Your task to perform on an android device: uninstall "Microsoft Authenticator" Image 0: 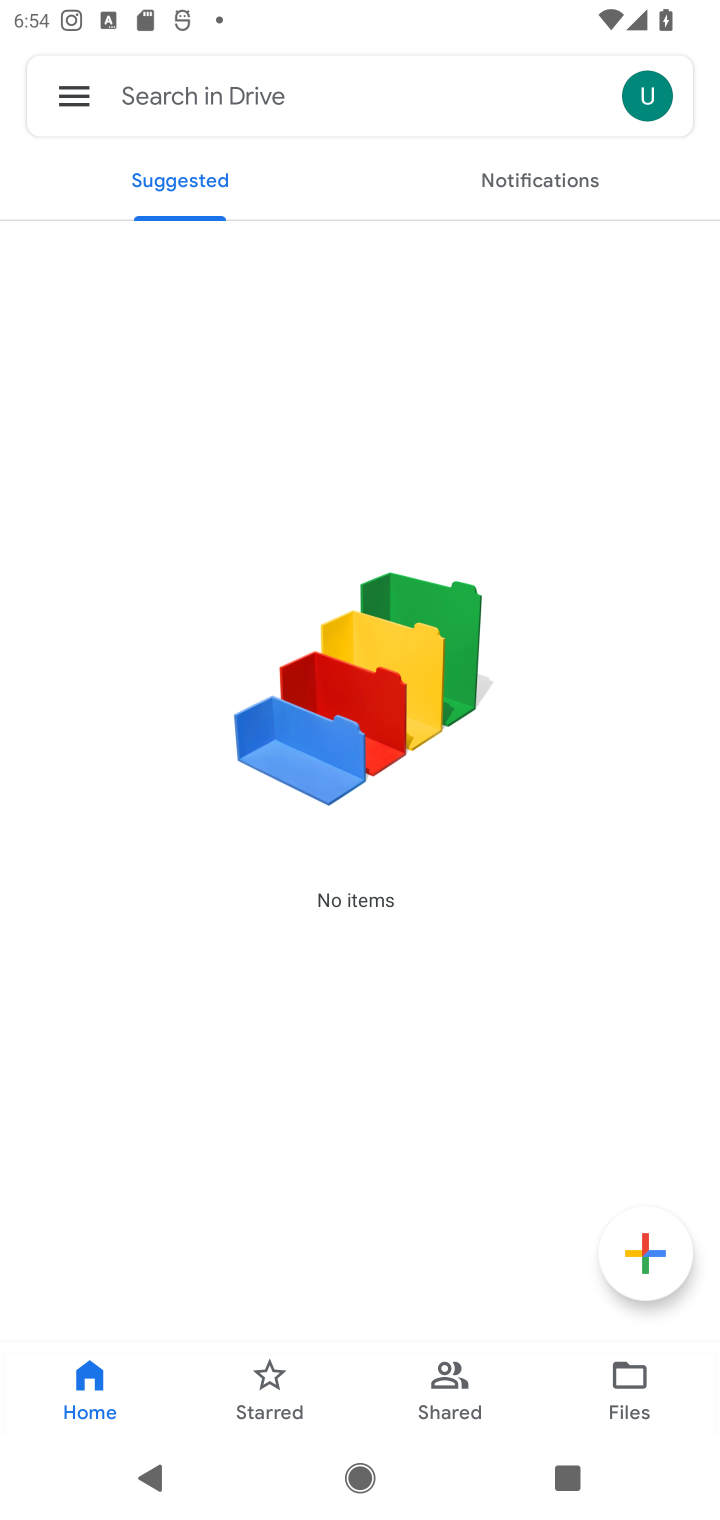
Step 0: press home button
Your task to perform on an android device: uninstall "Microsoft Authenticator" Image 1: 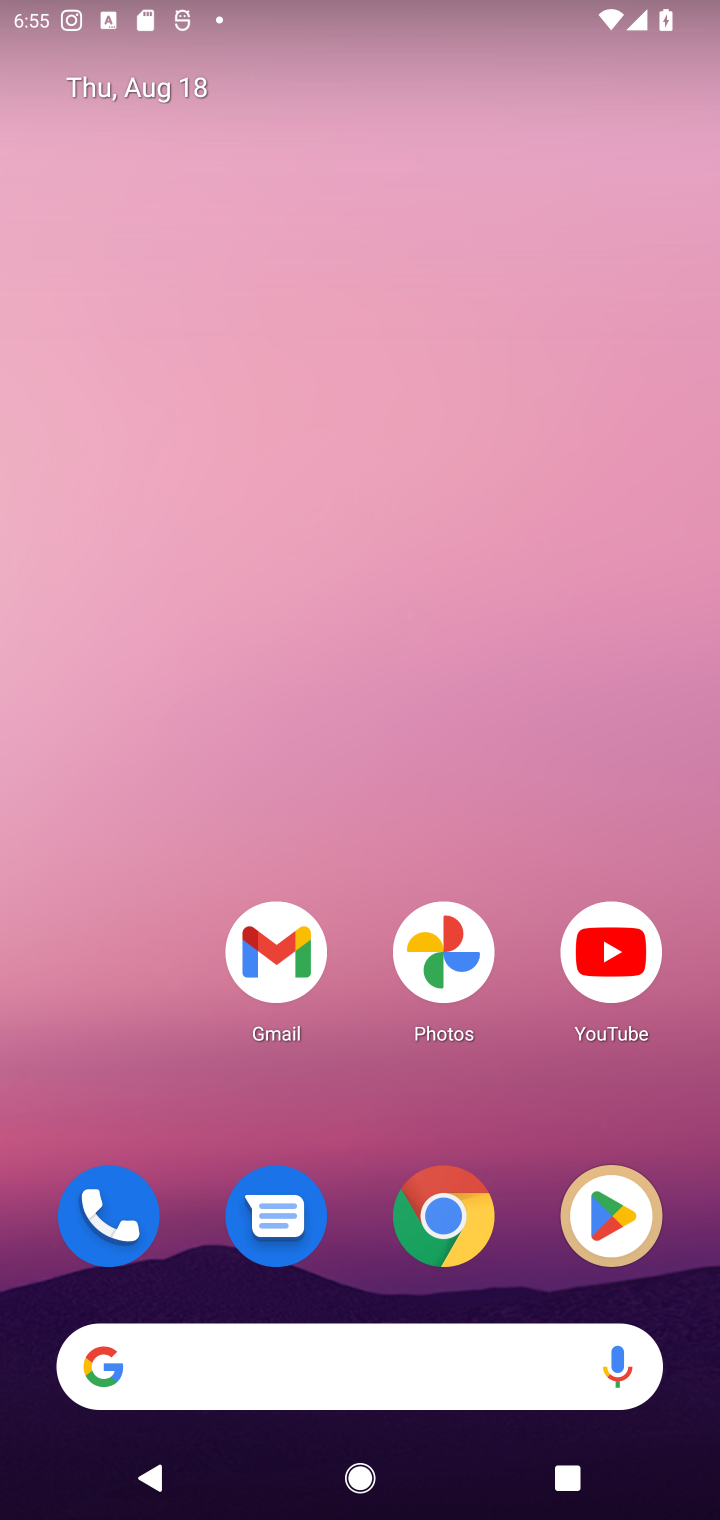
Step 1: click (593, 1189)
Your task to perform on an android device: uninstall "Microsoft Authenticator" Image 2: 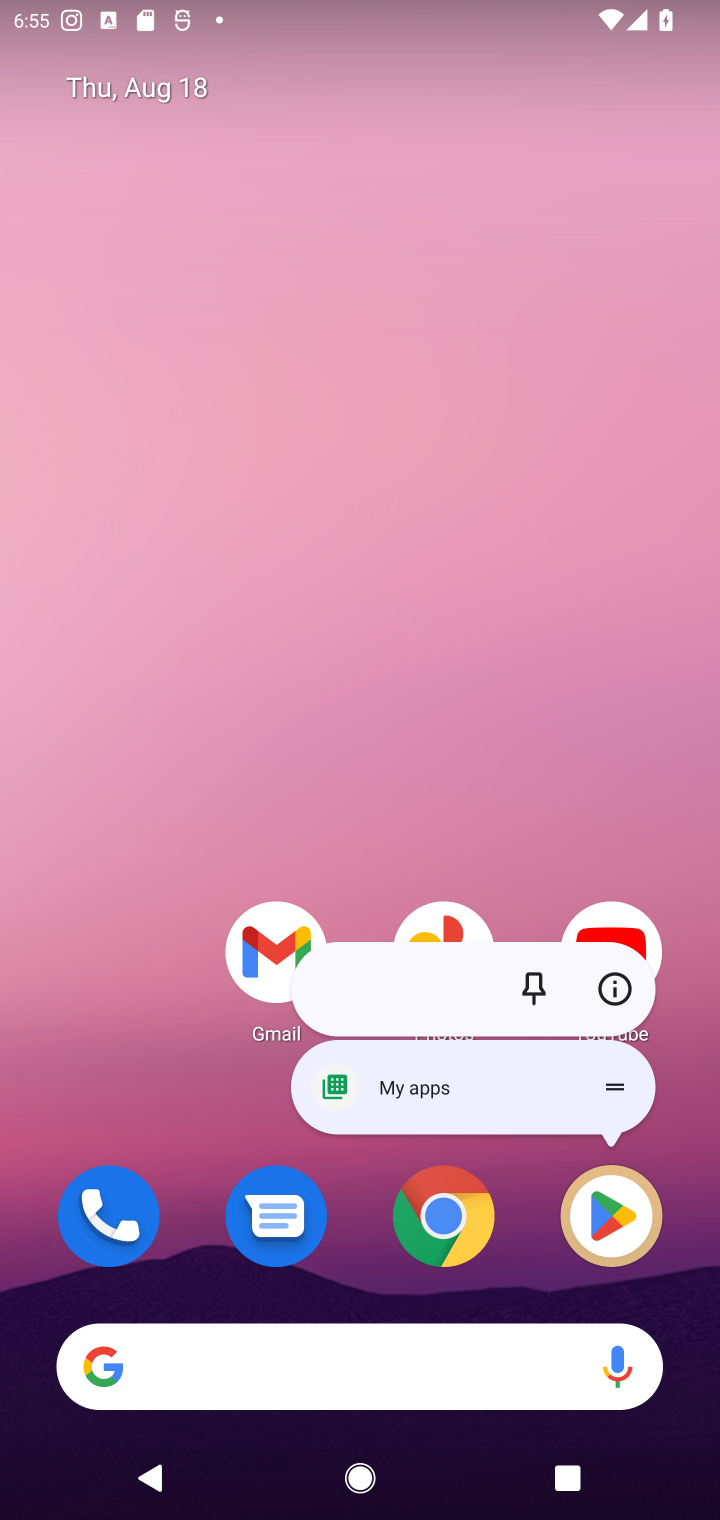
Step 2: click (591, 1212)
Your task to perform on an android device: uninstall "Microsoft Authenticator" Image 3: 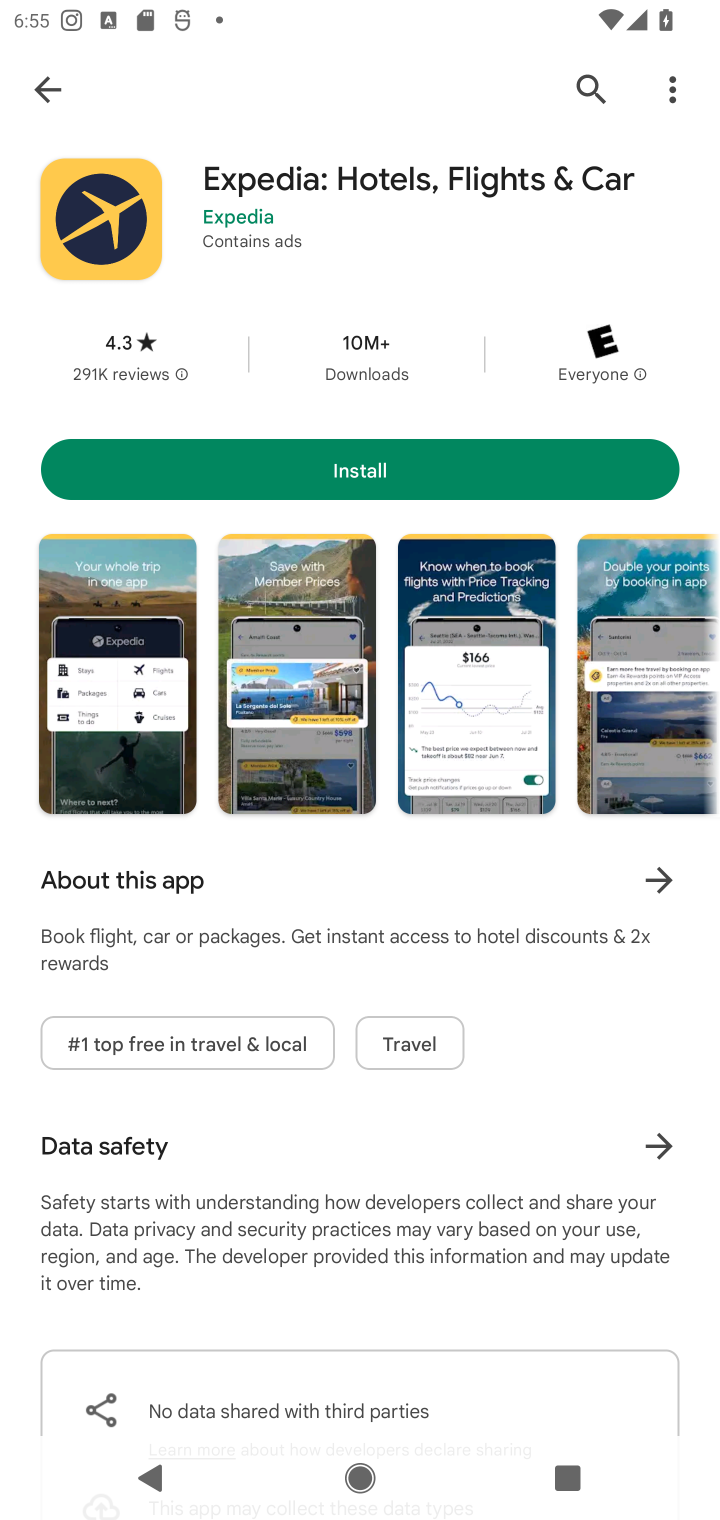
Step 3: click (566, 87)
Your task to perform on an android device: uninstall "Microsoft Authenticator" Image 4: 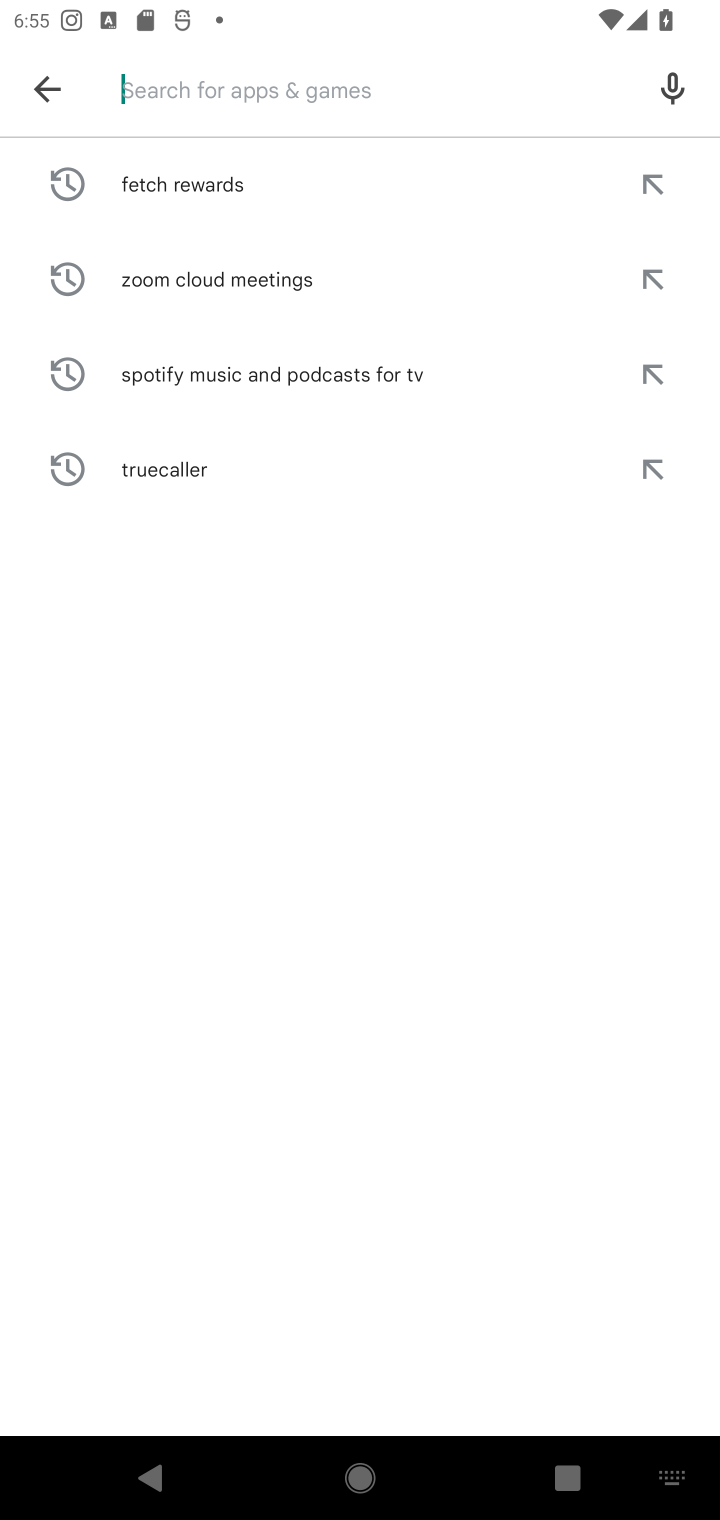
Step 4: type "Microsoft Authenticator"
Your task to perform on an android device: uninstall "Microsoft Authenticator" Image 5: 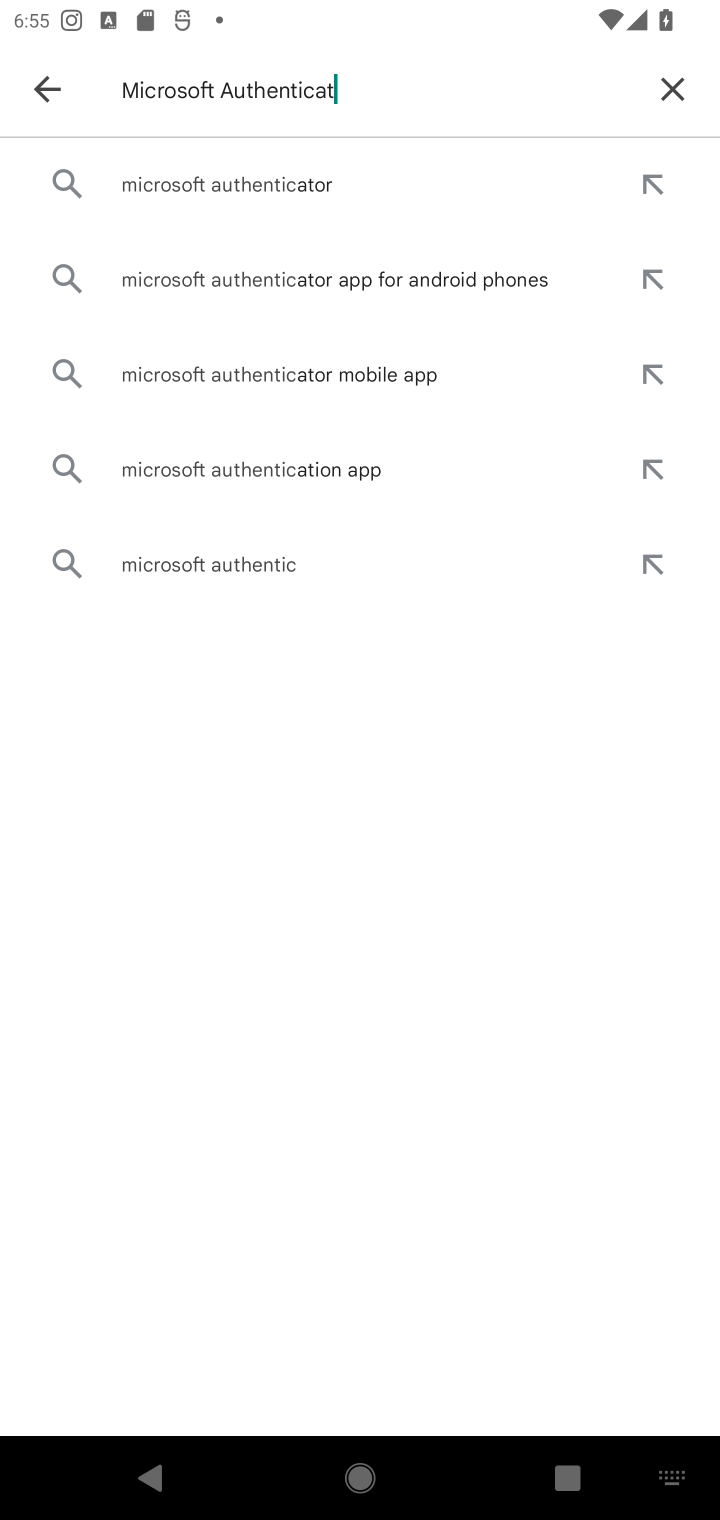
Step 5: type ""
Your task to perform on an android device: uninstall "Microsoft Authenticator" Image 6: 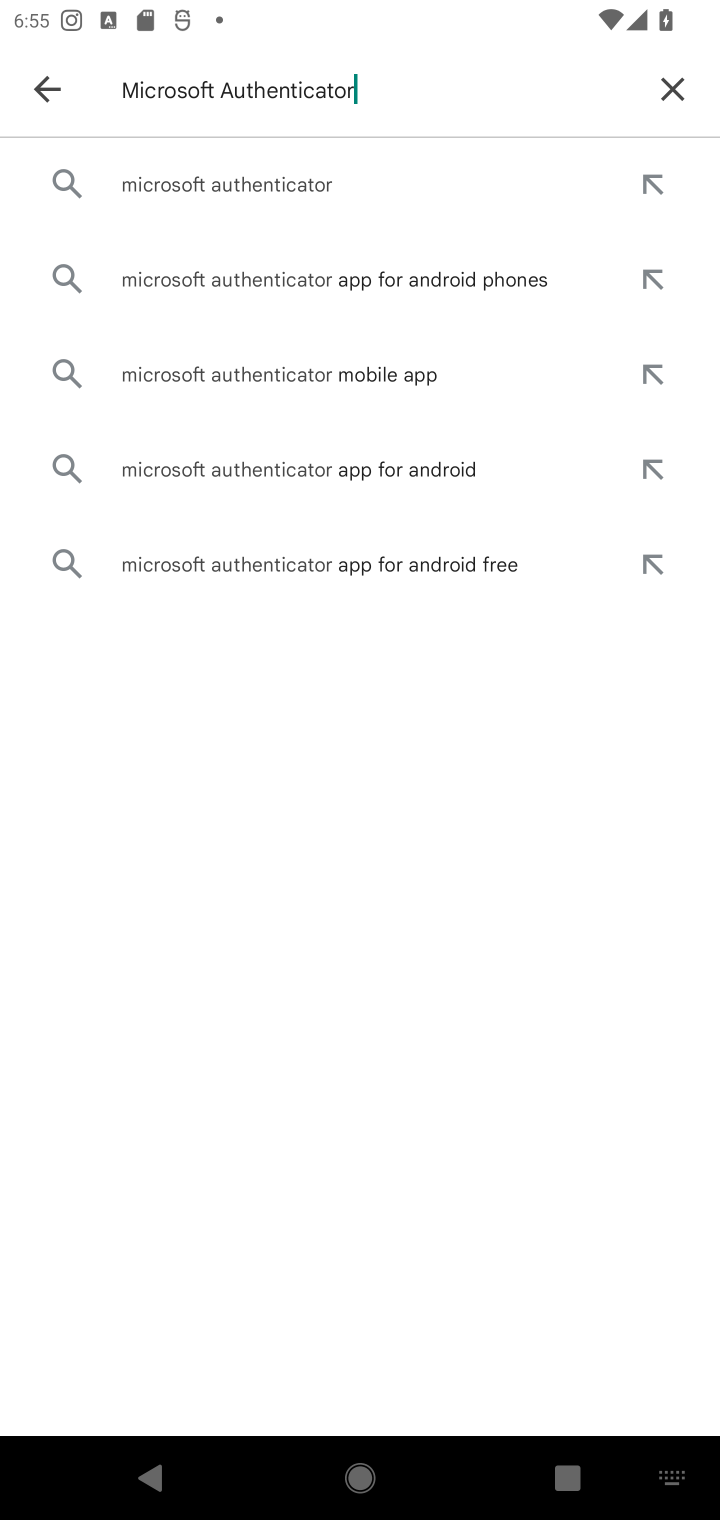
Step 6: click (172, 186)
Your task to perform on an android device: uninstall "Microsoft Authenticator" Image 7: 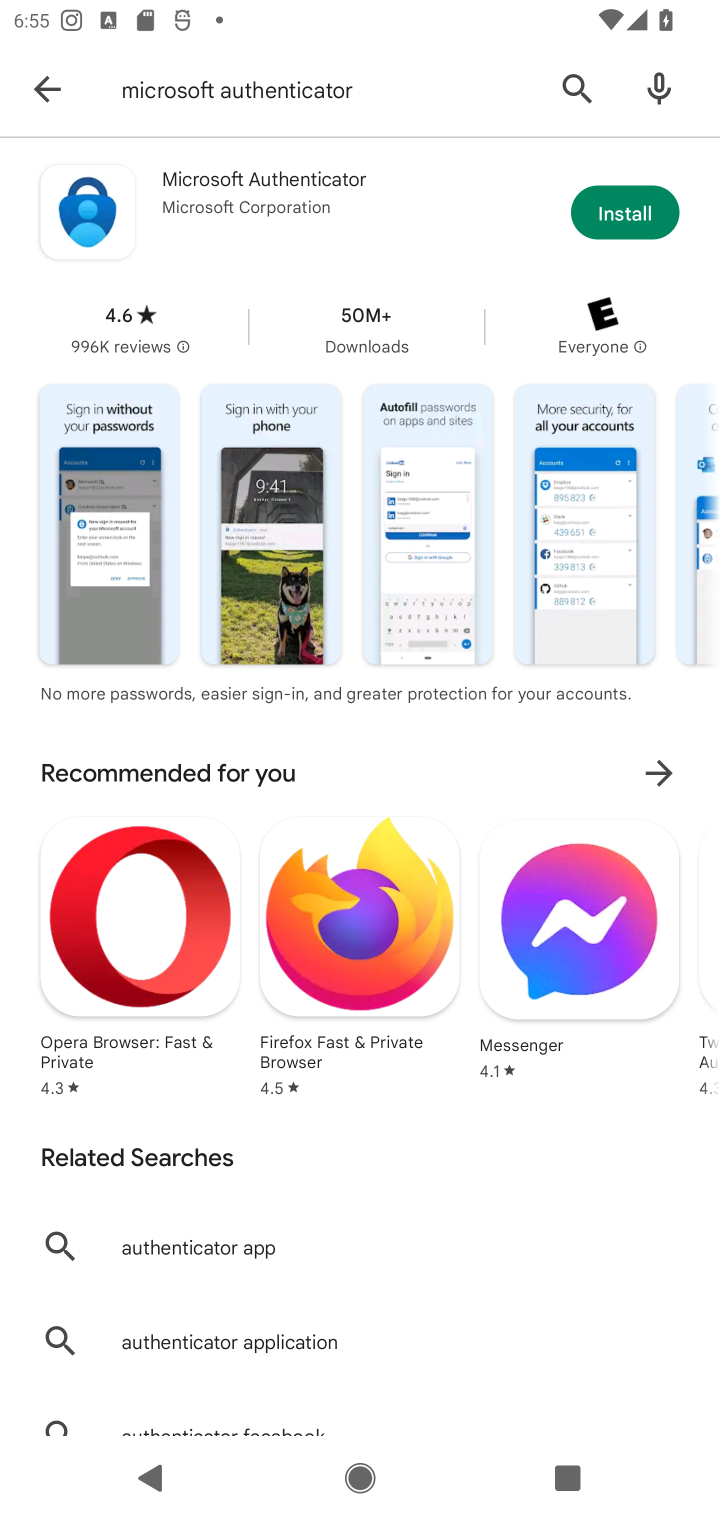
Step 7: click (263, 221)
Your task to perform on an android device: uninstall "Microsoft Authenticator" Image 8: 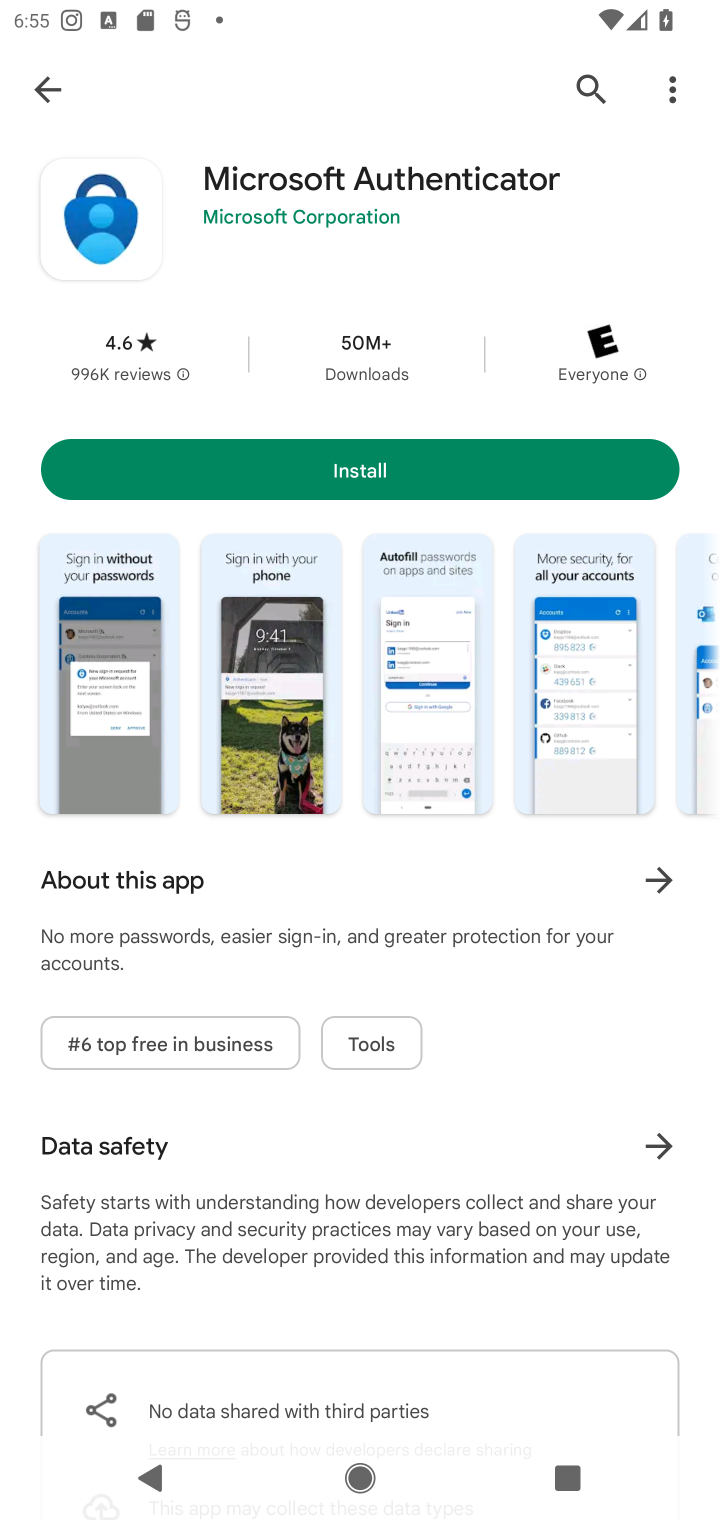
Step 8: task complete